Your task to perform on an android device: open app "Walmart Shopping & Grocery" (install if not already installed) Image 0: 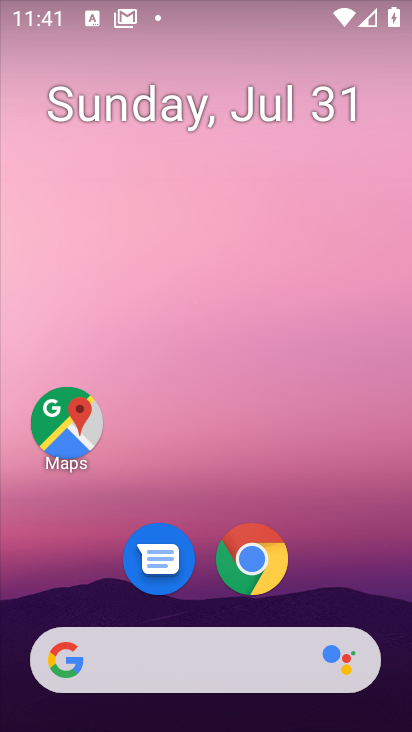
Step 0: drag from (82, 589) to (262, 21)
Your task to perform on an android device: open app "Walmart Shopping & Grocery" (install if not already installed) Image 1: 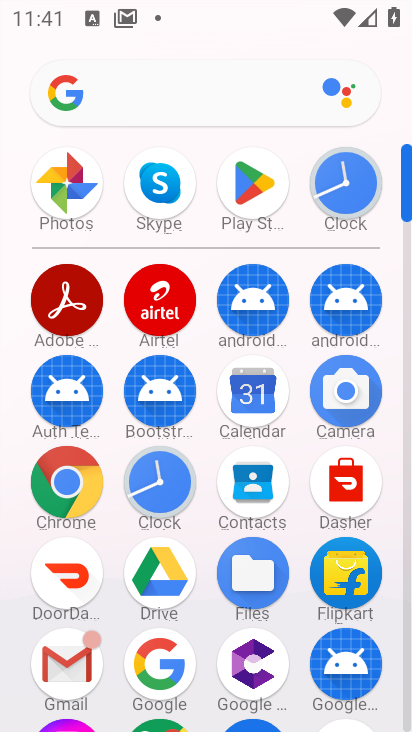
Step 1: click (238, 175)
Your task to perform on an android device: open app "Walmart Shopping & Grocery" (install if not already installed) Image 2: 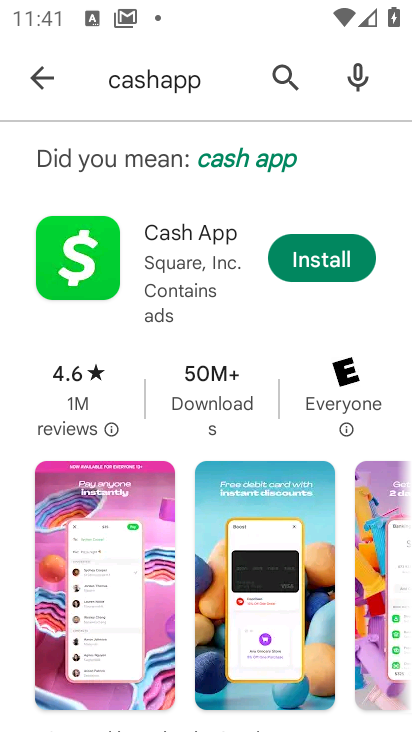
Step 2: click (278, 74)
Your task to perform on an android device: open app "Walmart Shopping & Grocery" (install if not already installed) Image 3: 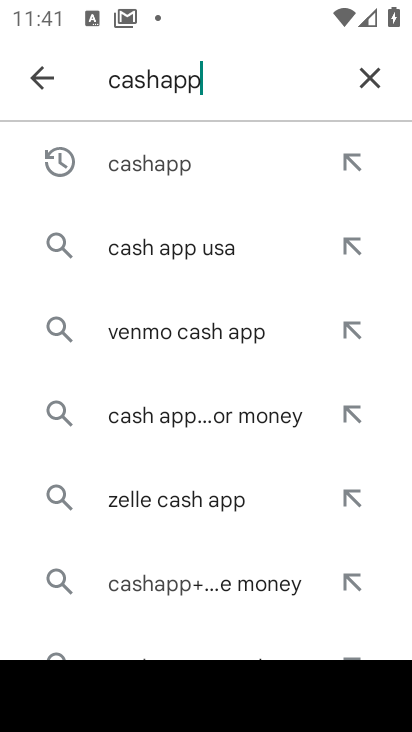
Step 3: click (383, 75)
Your task to perform on an android device: open app "Walmart Shopping & Grocery" (install if not already installed) Image 4: 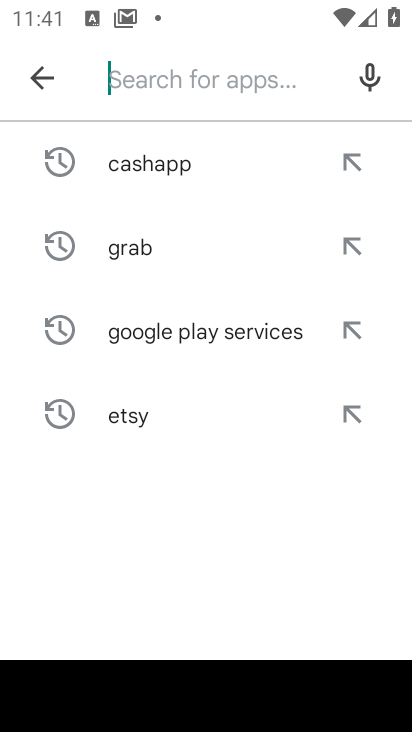
Step 4: click (134, 85)
Your task to perform on an android device: open app "Walmart Shopping & Grocery" (install if not already installed) Image 5: 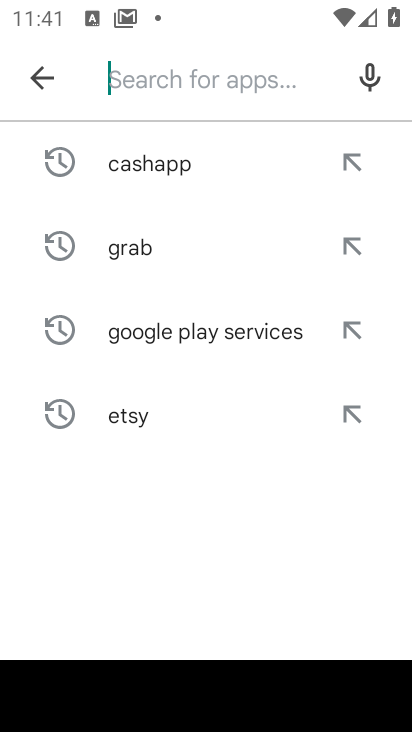
Step 5: type "walmart"
Your task to perform on an android device: open app "Walmart Shopping & Grocery" (install if not already installed) Image 6: 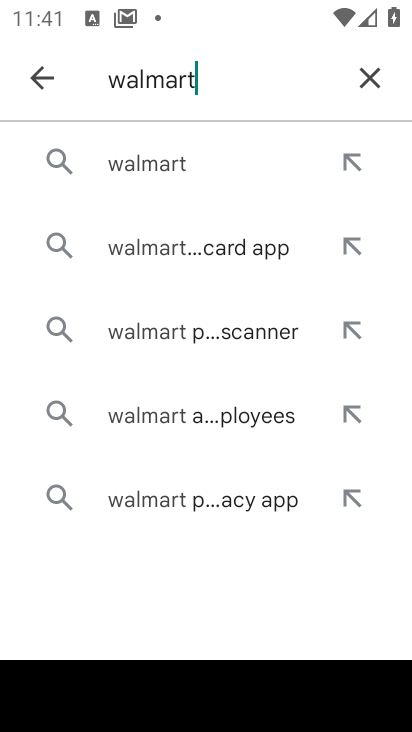
Step 6: click (168, 157)
Your task to perform on an android device: open app "Walmart Shopping & Grocery" (install if not already installed) Image 7: 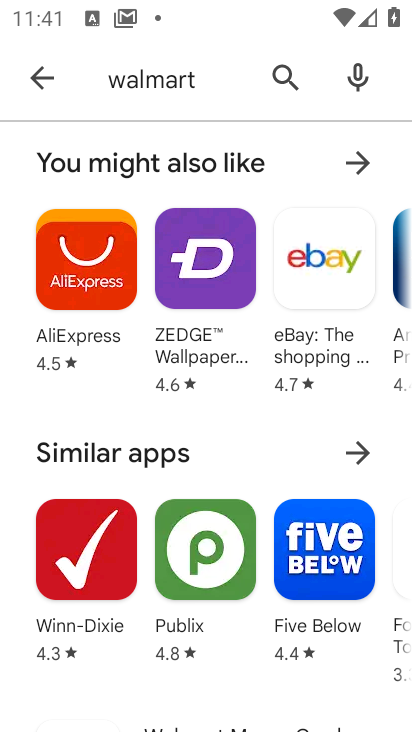
Step 7: task complete